Your task to perform on an android device: What's on my calendar tomorrow? Image 0: 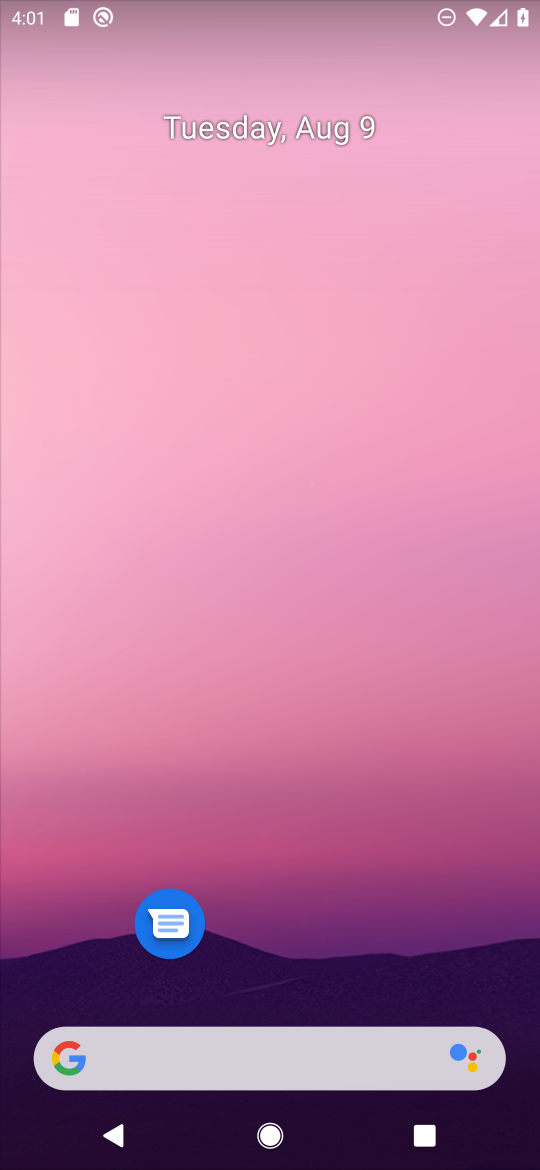
Step 0: drag from (324, 836) to (348, 184)
Your task to perform on an android device: What's on my calendar tomorrow? Image 1: 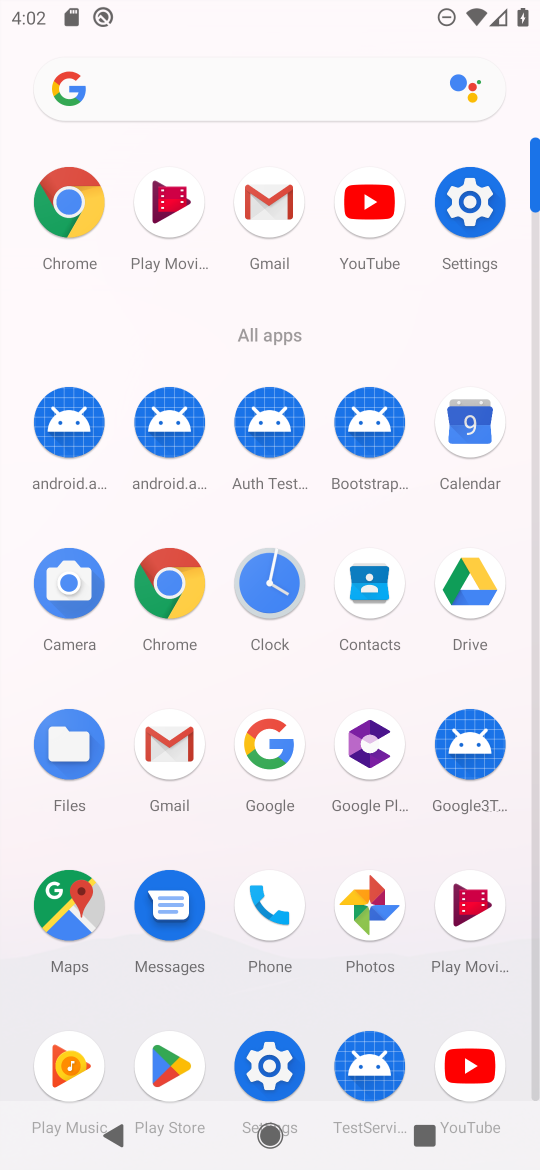
Step 1: click (470, 412)
Your task to perform on an android device: What's on my calendar tomorrow? Image 2: 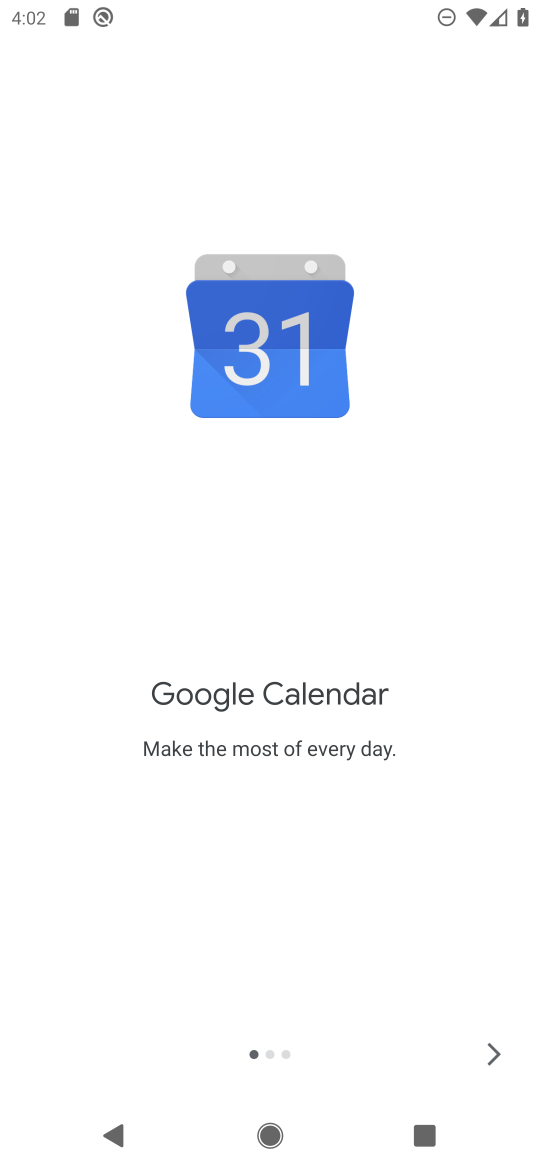
Step 2: click (481, 1055)
Your task to perform on an android device: What's on my calendar tomorrow? Image 3: 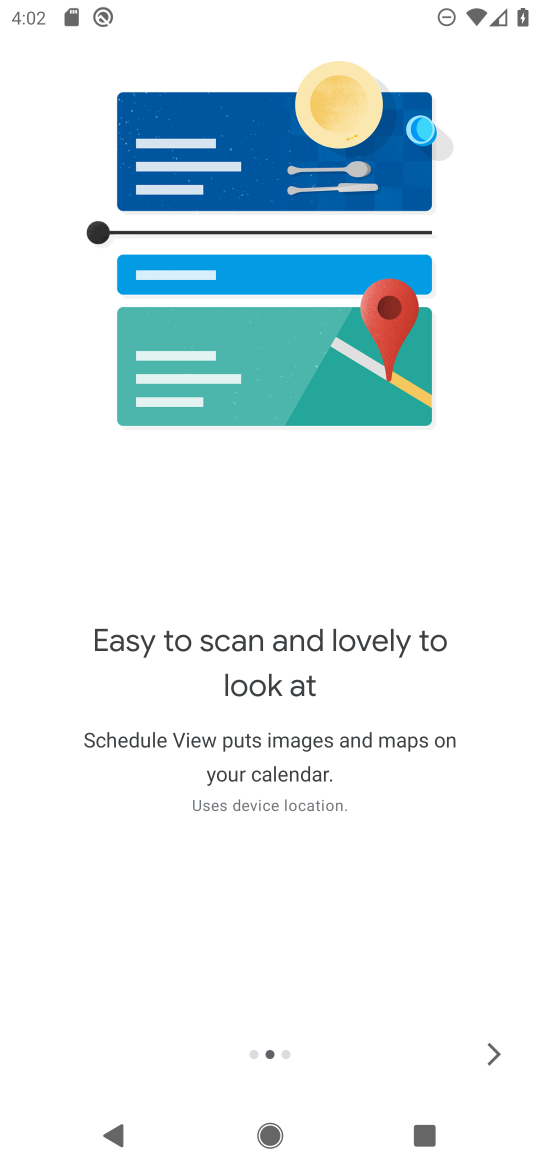
Step 3: click (481, 1055)
Your task to perform on an android device: What's on my calendar tomorrow? Image 4: 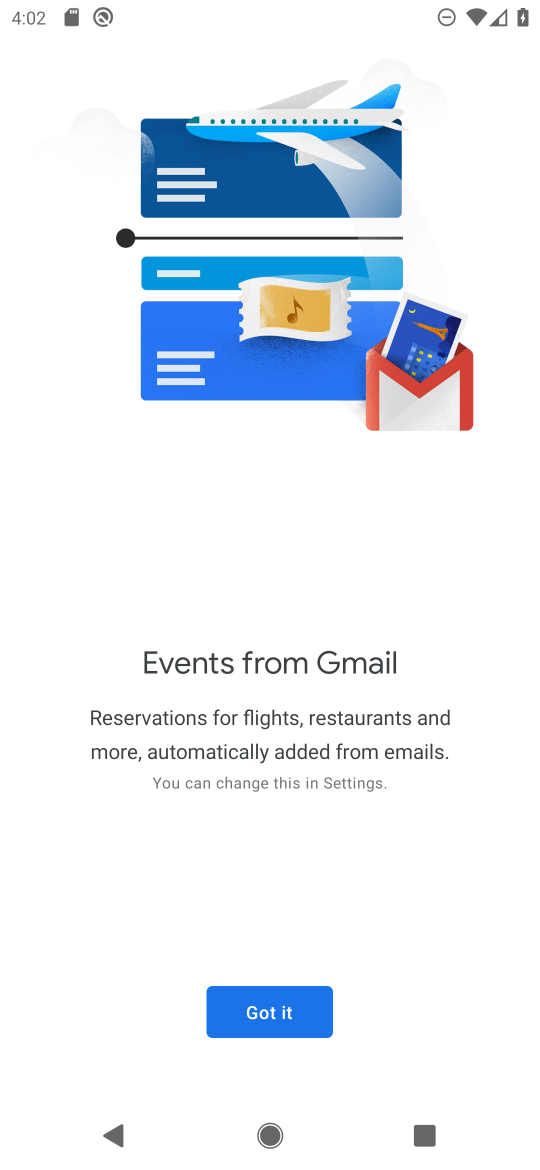
Step 4: click (264, 1015)
Your task to perform on an android device: What's on my calendar tomorrow? Image 5: 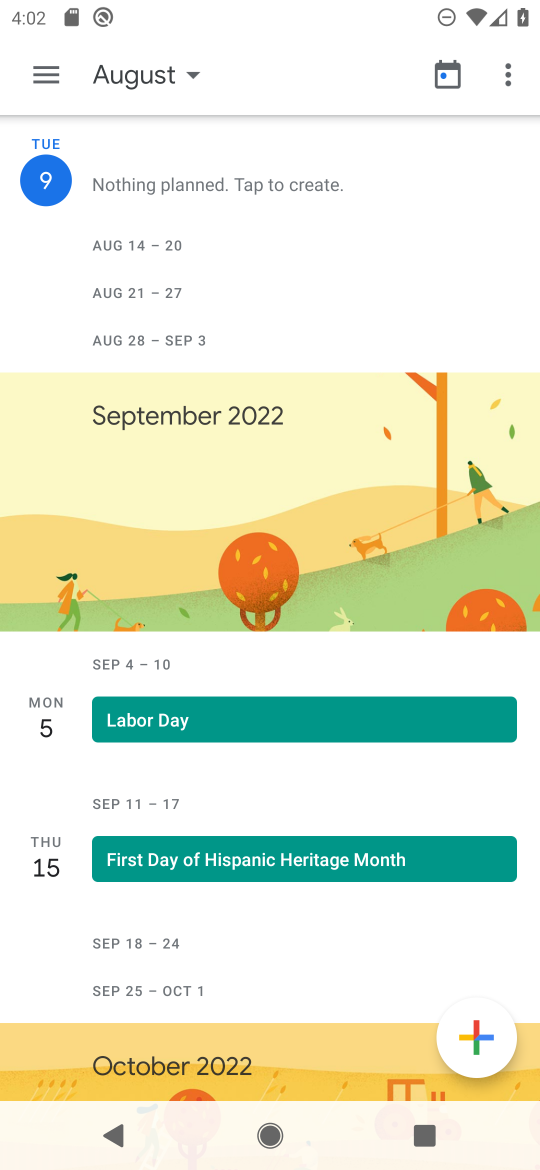
Step 5: task complete